Your task to perform on an android device: Open battery settings Image 0: 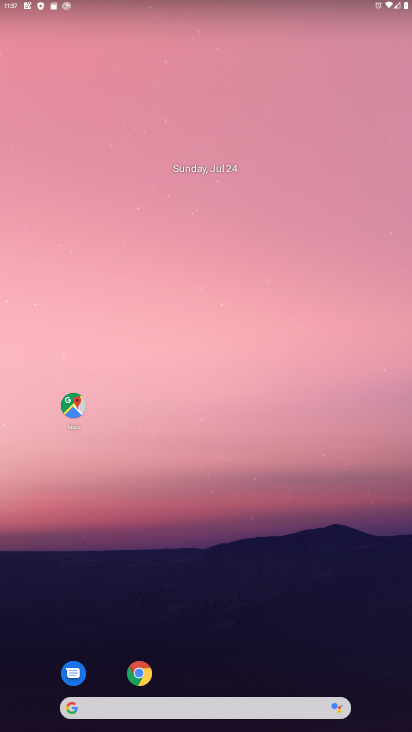
Step 0: drag from (300, 530) to (302, 2)
Your task to perform on an android device: Open battery settings Image 1: 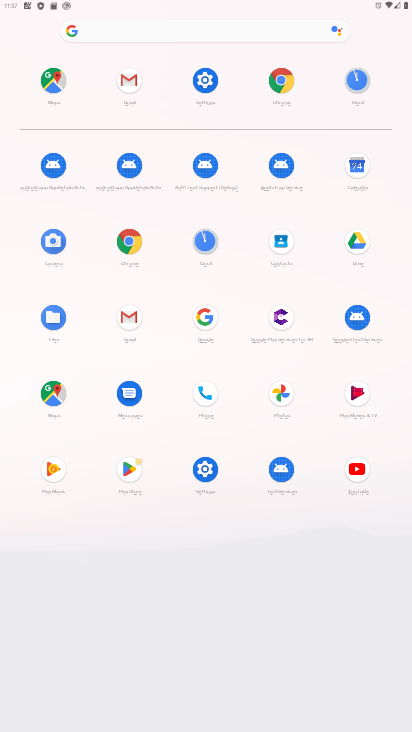
Step 1: click (200, 71)
Your task to perform on an android device: Open battery settings Image 2: 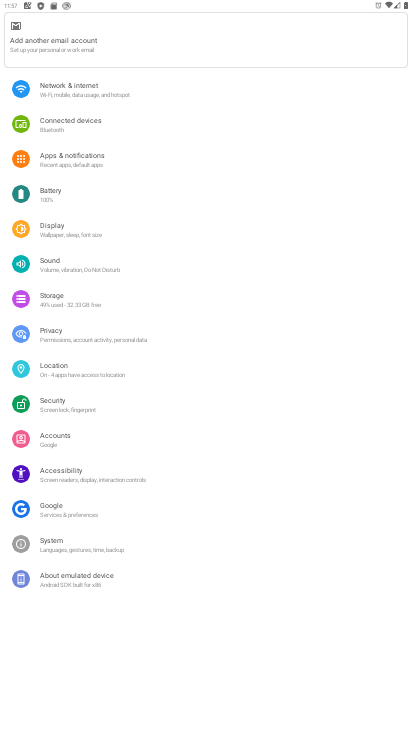
Step 2: click (58, 193)
Your task to perform on an android device: Open battery settings Image 3: 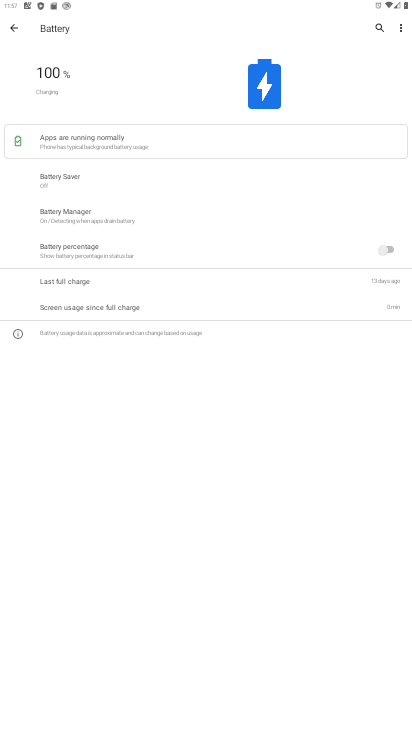
Step 3: task complete